Your task to perform on an android device: Search for macbook on newegg.com, select the first entry, and add it to the cart. Image 0: 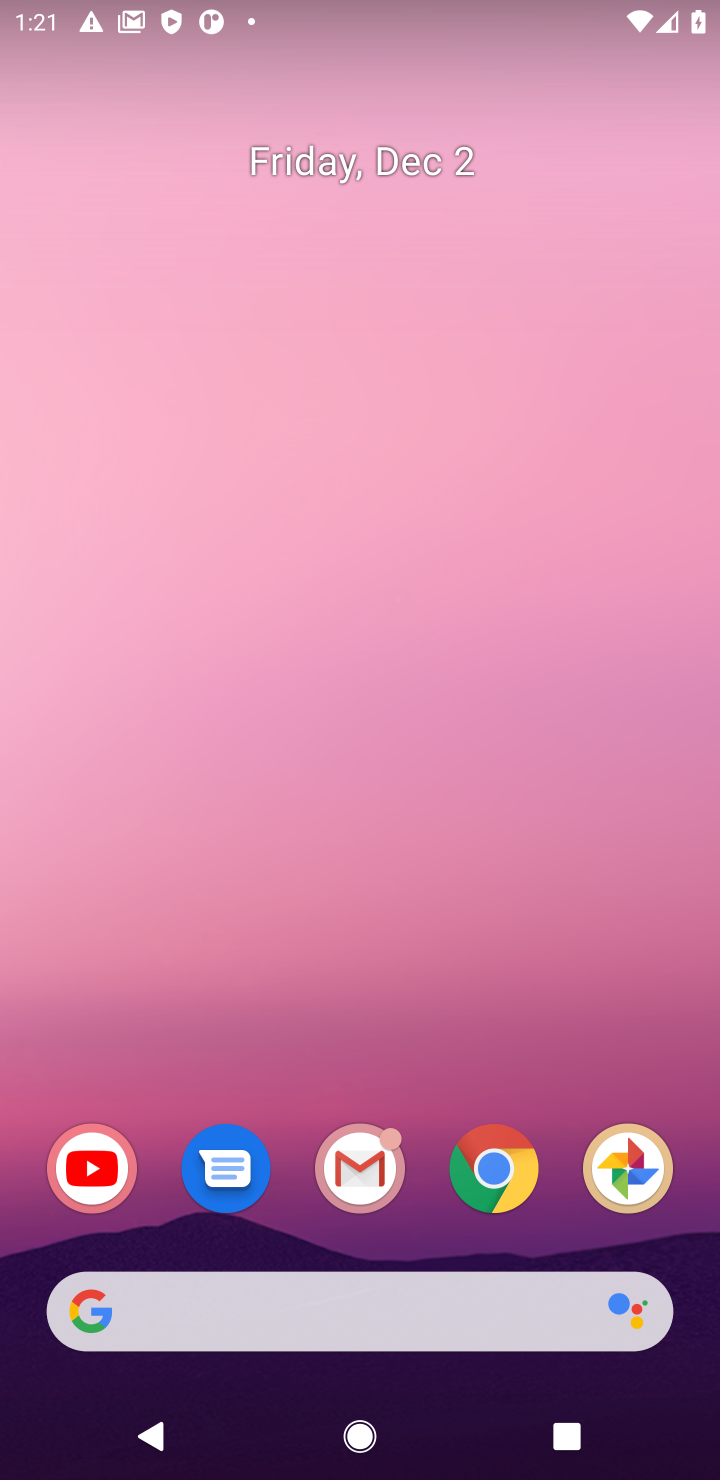
Step 0: click (514, 1172)
Your task to perform on an android device: Search for macbook on newegg.com, select the first entry, and add it to the cart. Image 1: 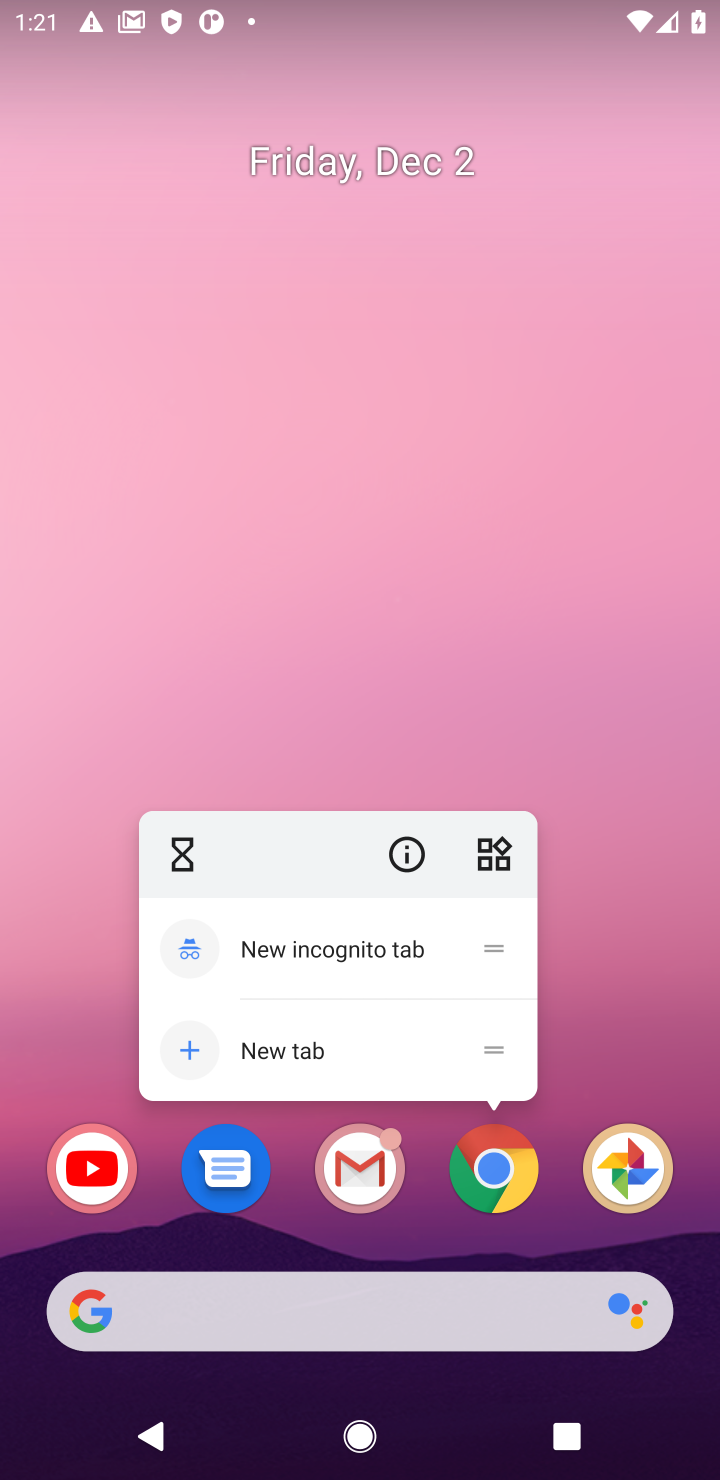
Step 1: click (505, 1172)
Your task to perform on an android device: Search for macbook on newegg.com, select the first entry, and add it to the cart. Image 2: 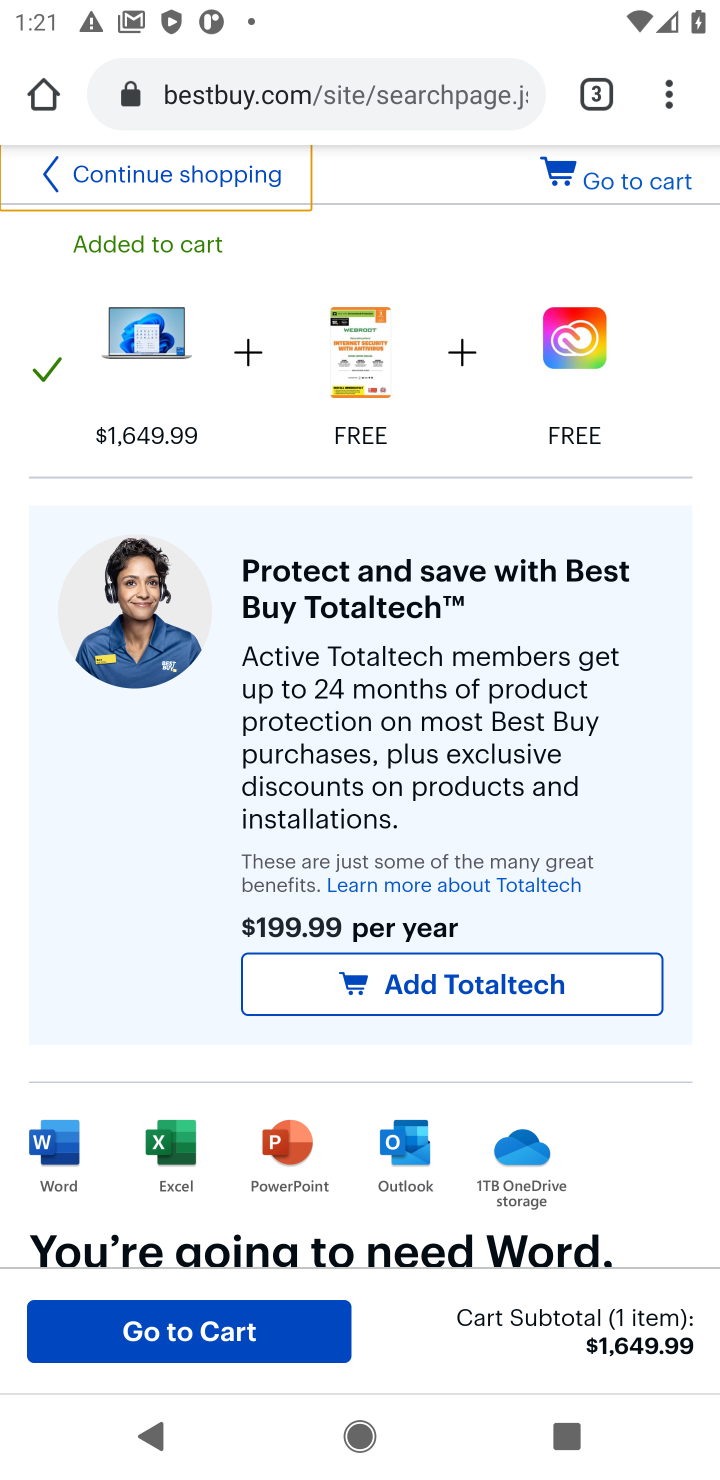
Step 2: click (271, 106)
Your task to perform on an android device: Search for macbook on newegg.com, select the first entry, and add it to the cart. Image 3: 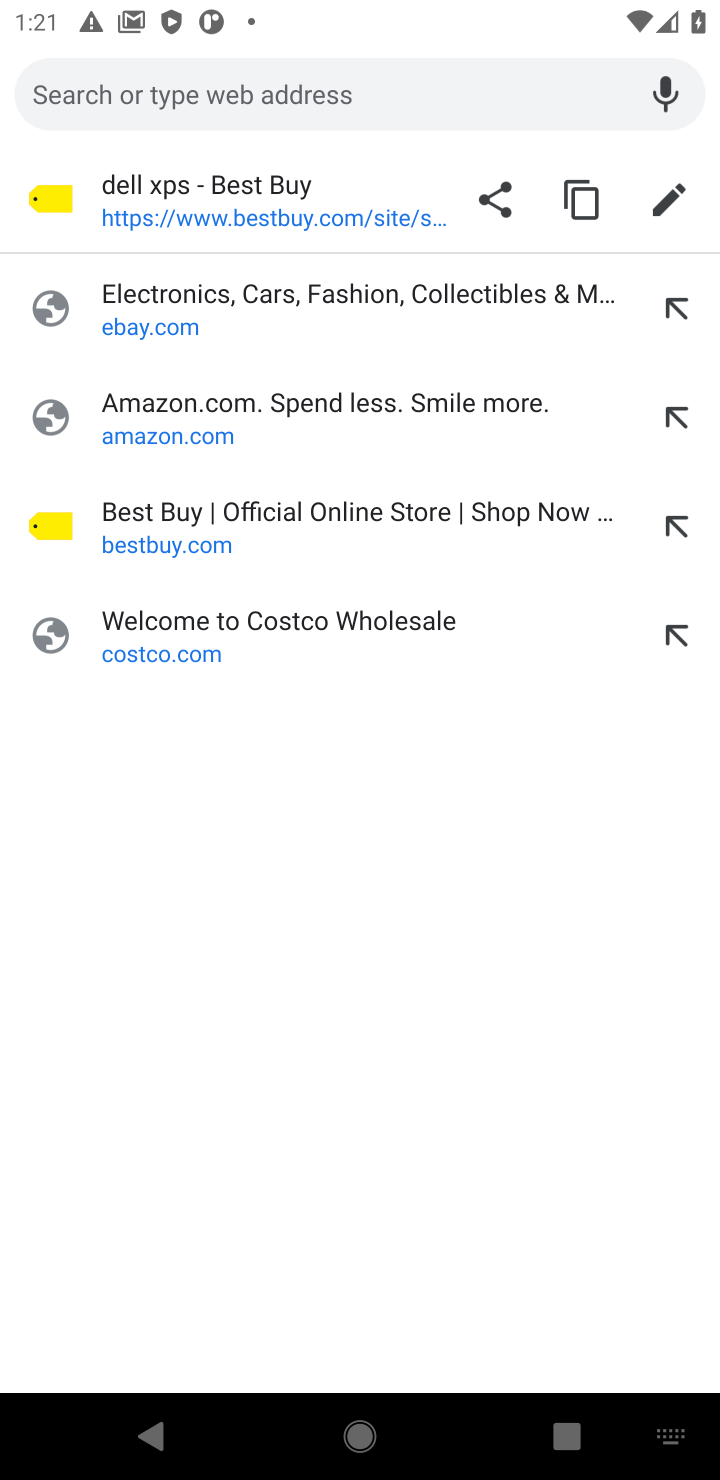
Step 3: type "newegg.com"
Your task to perform on an android device: Search for macbook on newegg.com, select the first entry, and add it to the cart. Image 4: 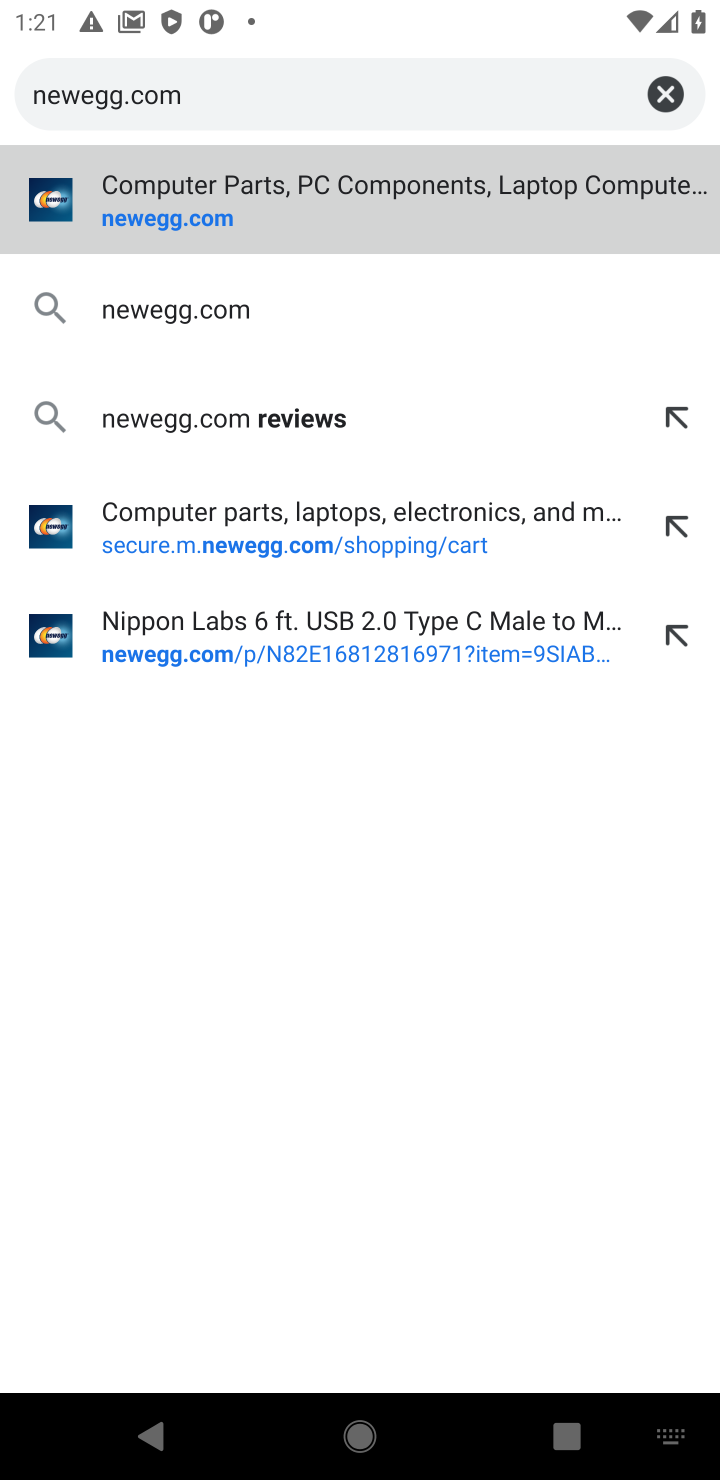
Step 4: click (137, 194)
Your task to perform on an android device: Search for macbook on newegg.com, select the first entry, and add it to the cart. Image 5: 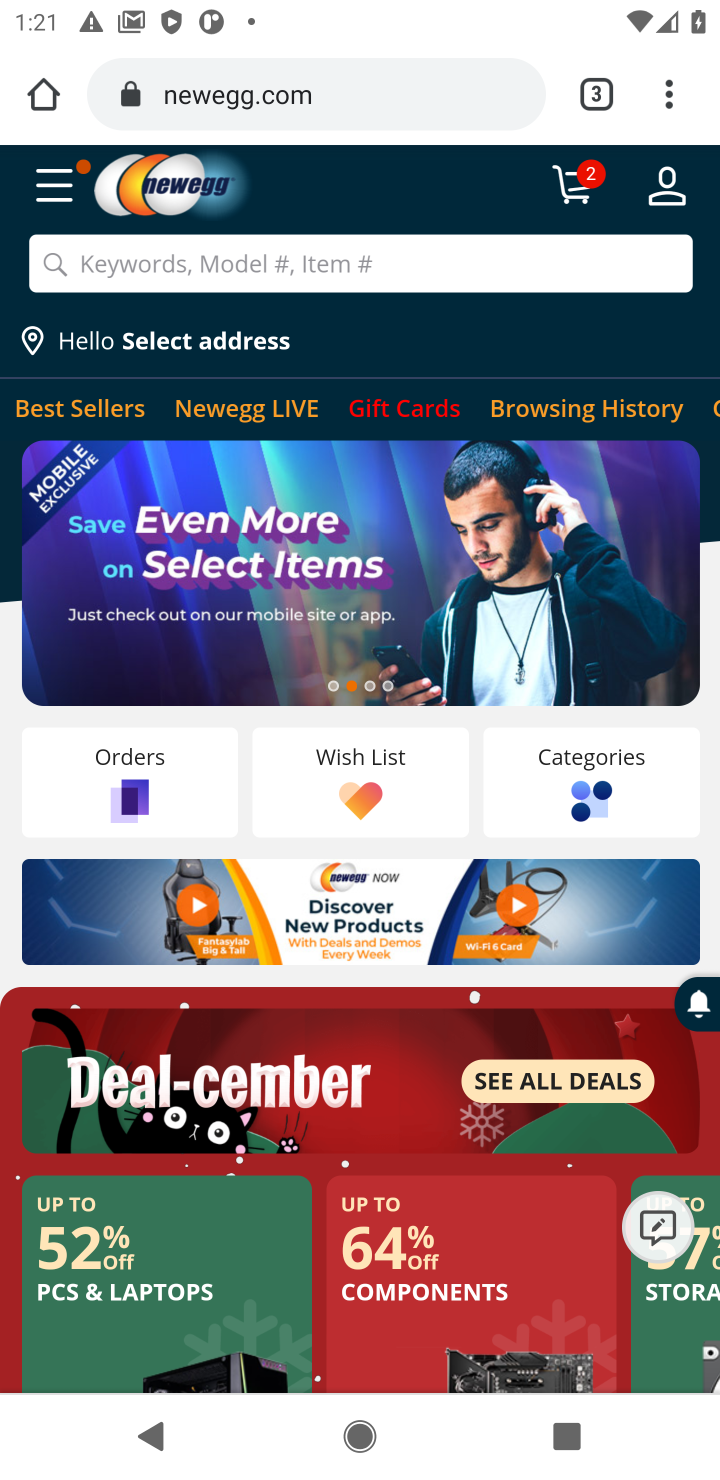
Step 5: click (160, 307)
Your task to perform on an android device: Search for macbook on newegg.com, select the first entry, and add it to the cart. Image 6: 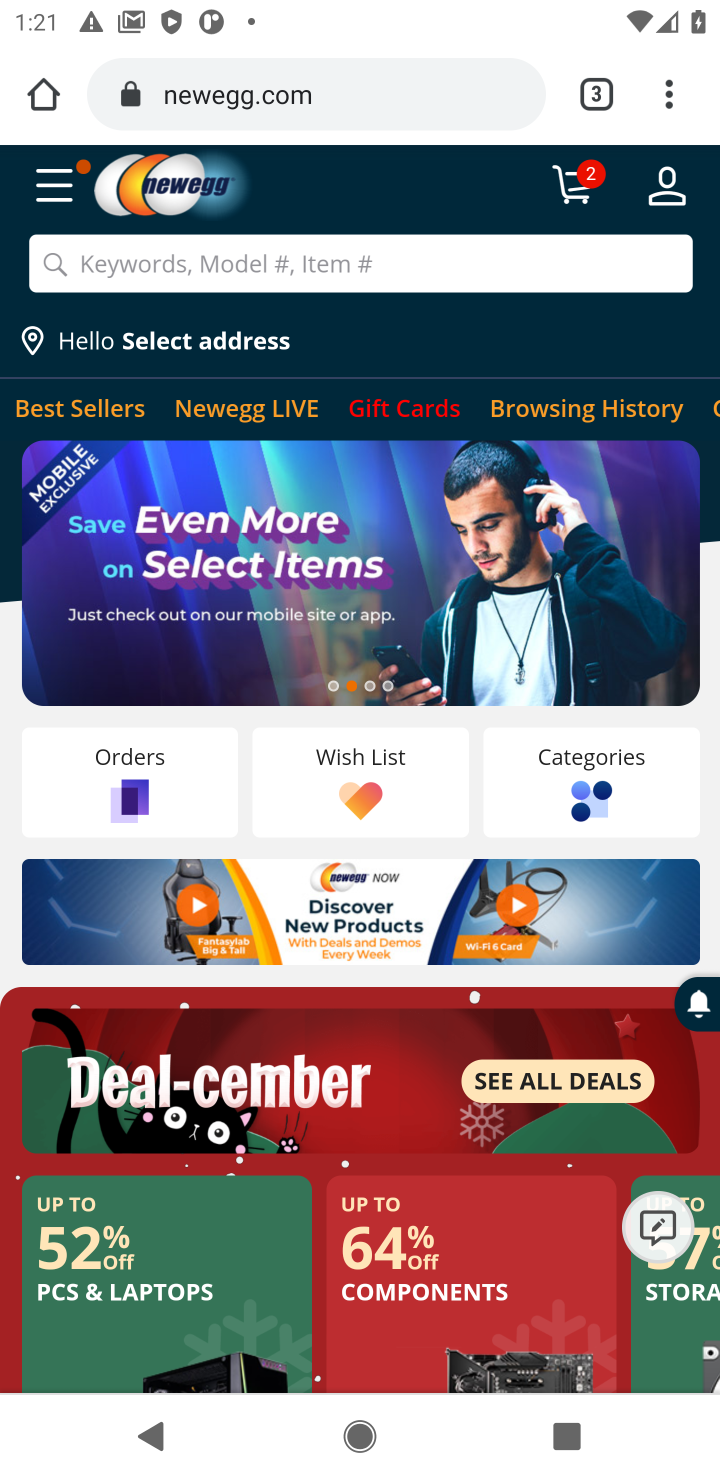
Step 6: click (170, 258)
Your task to perform on an android device: Search for macbook on newegg.com, select the first entry, and add it to the cart. Image 7: 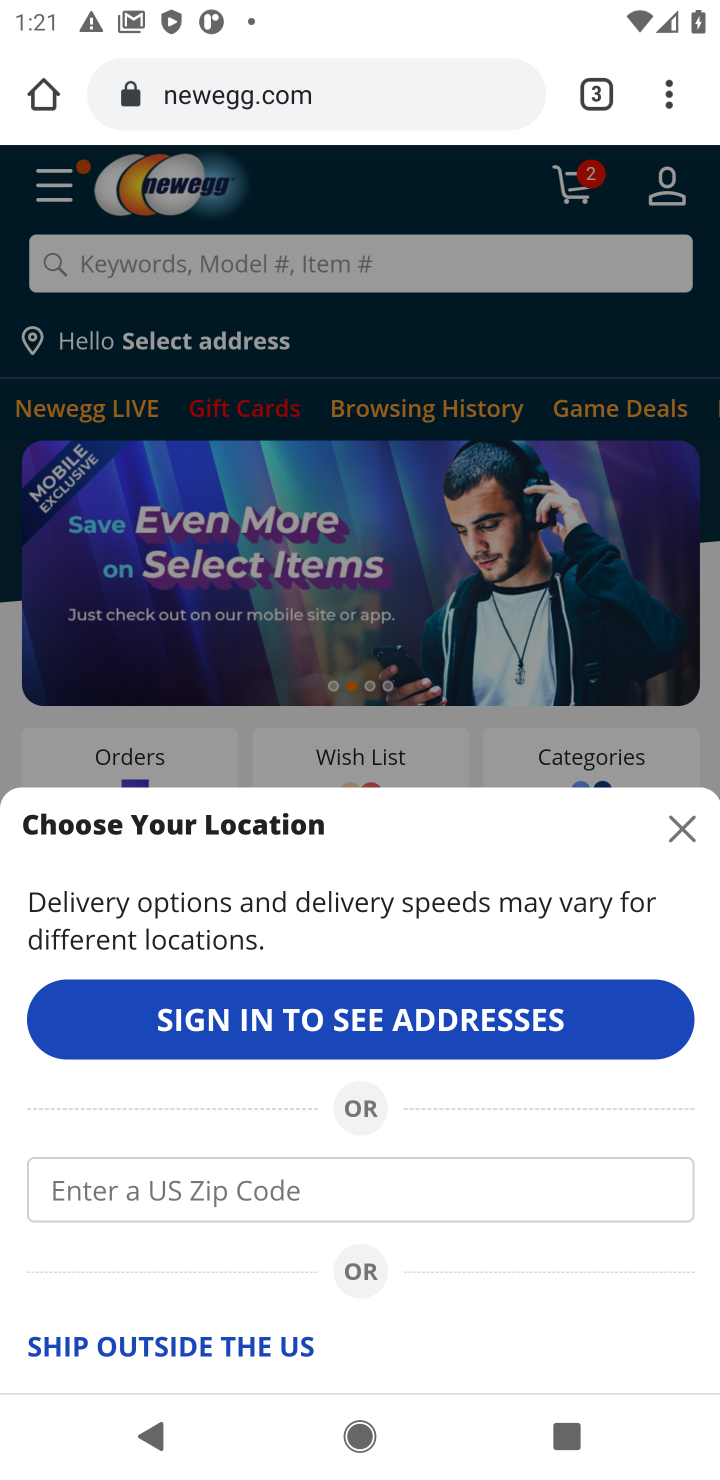
Step 7: click (166, 267)
Your task to perform on an android device: Search for macbook on newegg.com, select the first entry, and add it to the cart. Image 8: 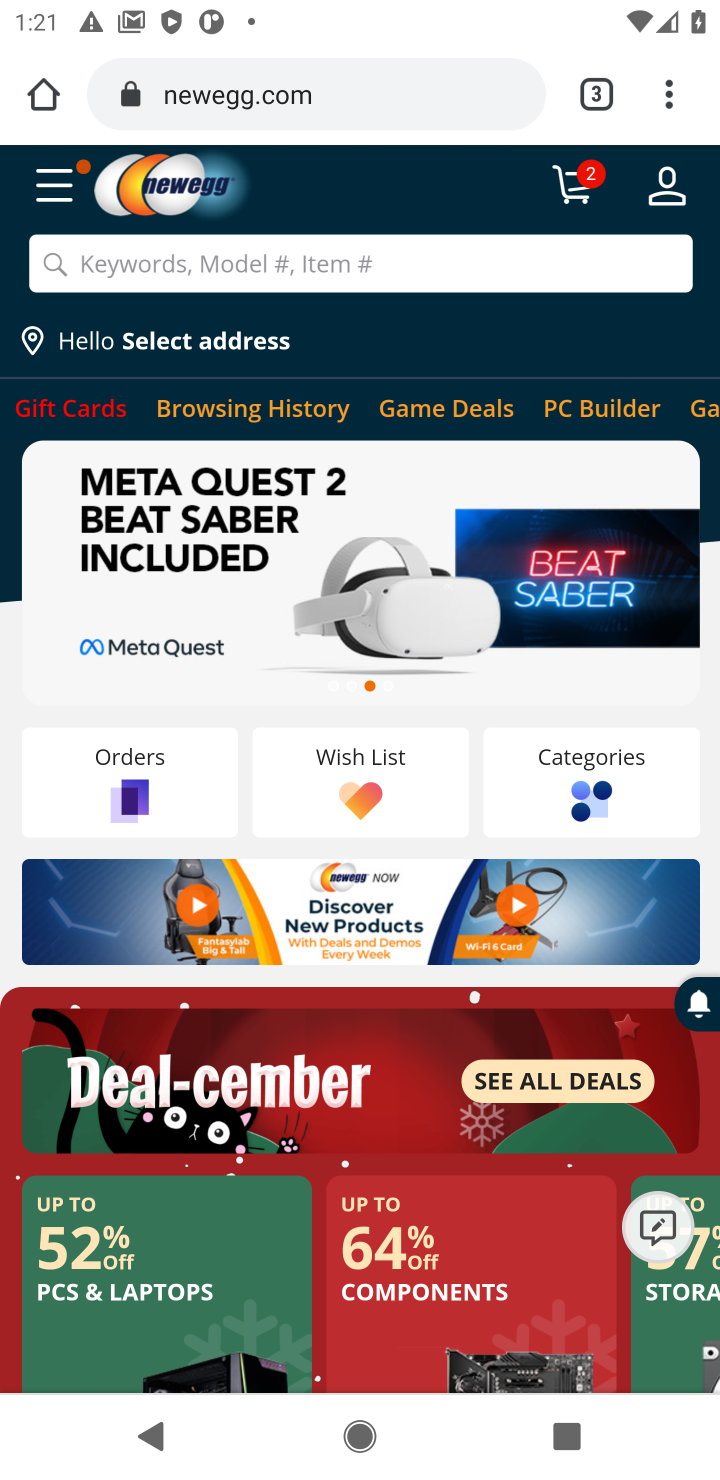
Step 8: click (132, 266)
Your task to perform on an android device: Search for macbook on newegg.com, select the first entry, and add it to the cart. Image 9: 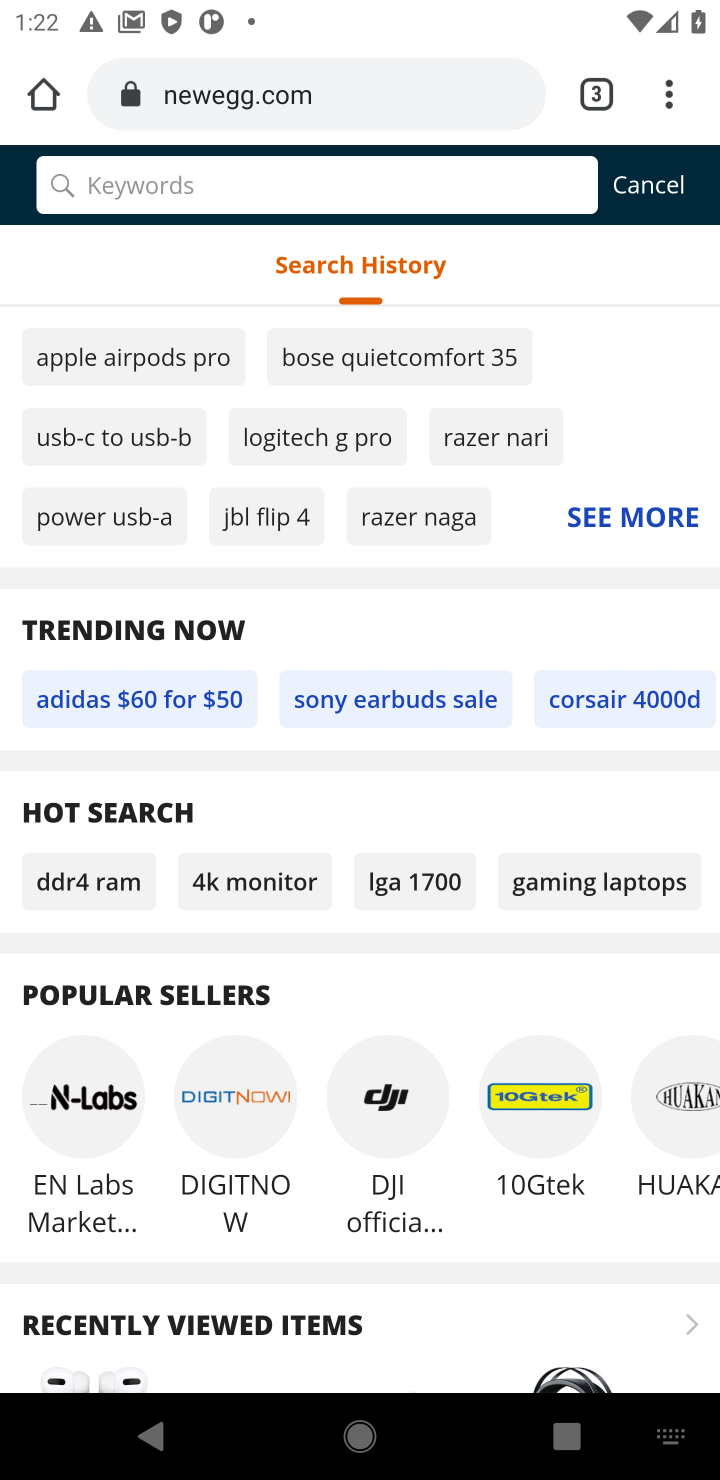
Step 9: type "macbook"
Your task to perform on an android device: Search for macbook on newegg.com, select the first entry, and add it to the cart. Image 10: 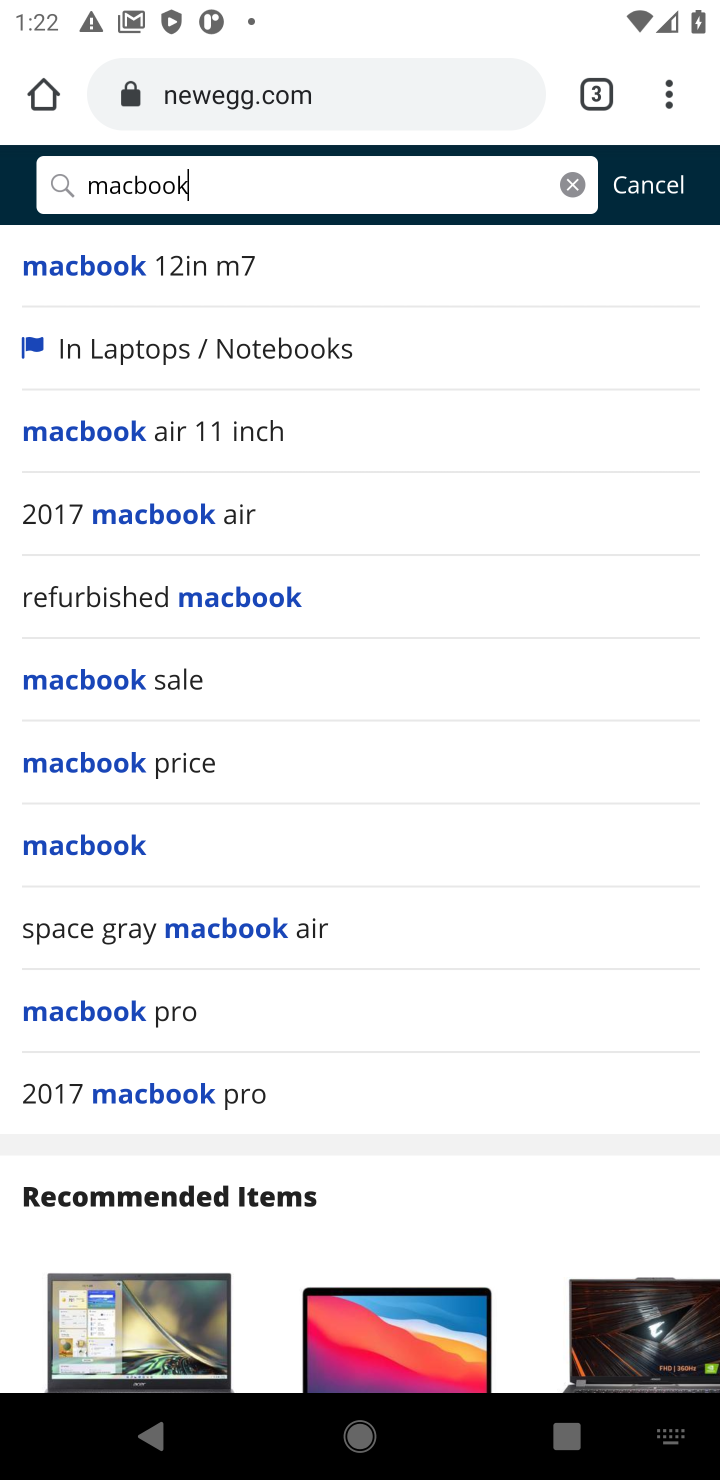
Step 10: click (78, 855)
Your task to perform on an android device: Search for macbook on newegg.com, select the first entry, and add it to the cart. Image 11: 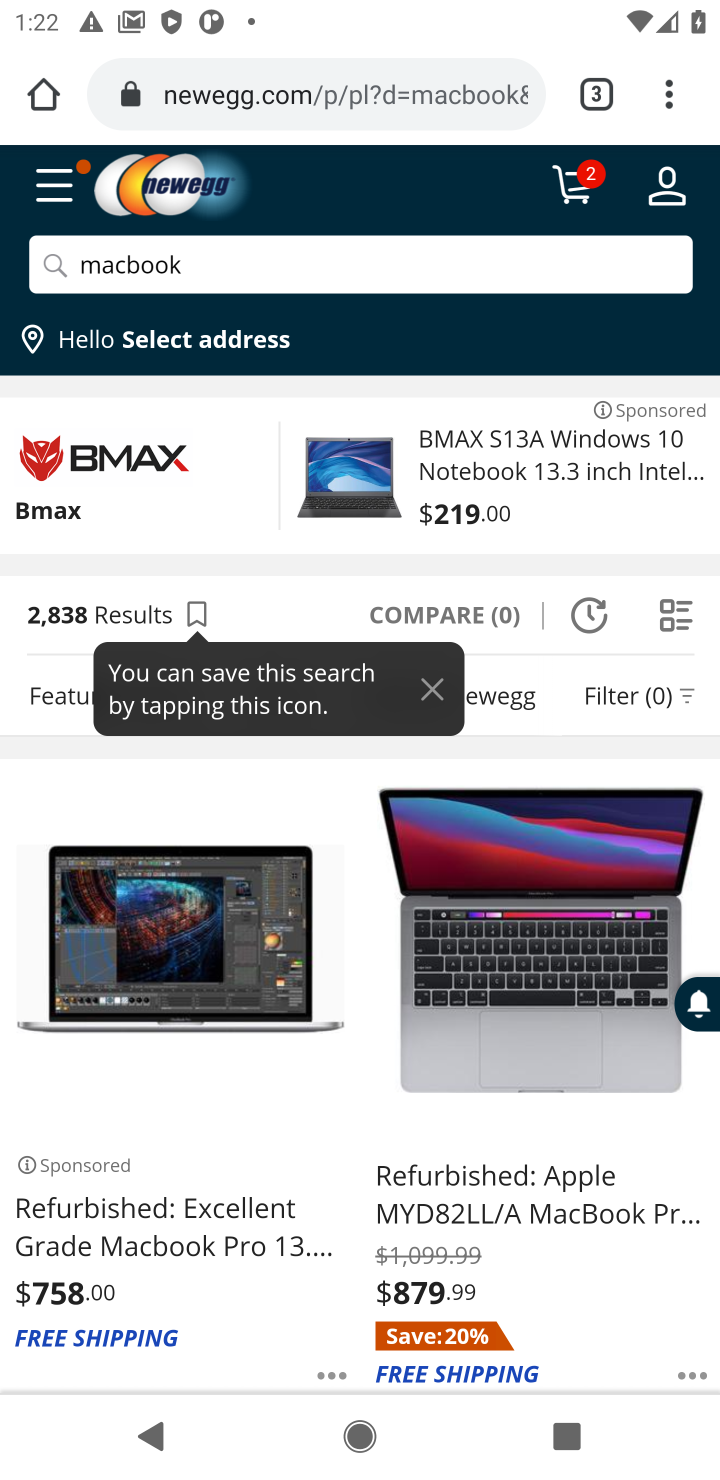
Step 11: click (108, 1214)
Your task to perform on an android device: Search for macbook on newegg.com, select the first entry, and add it to the cart. Image 12: 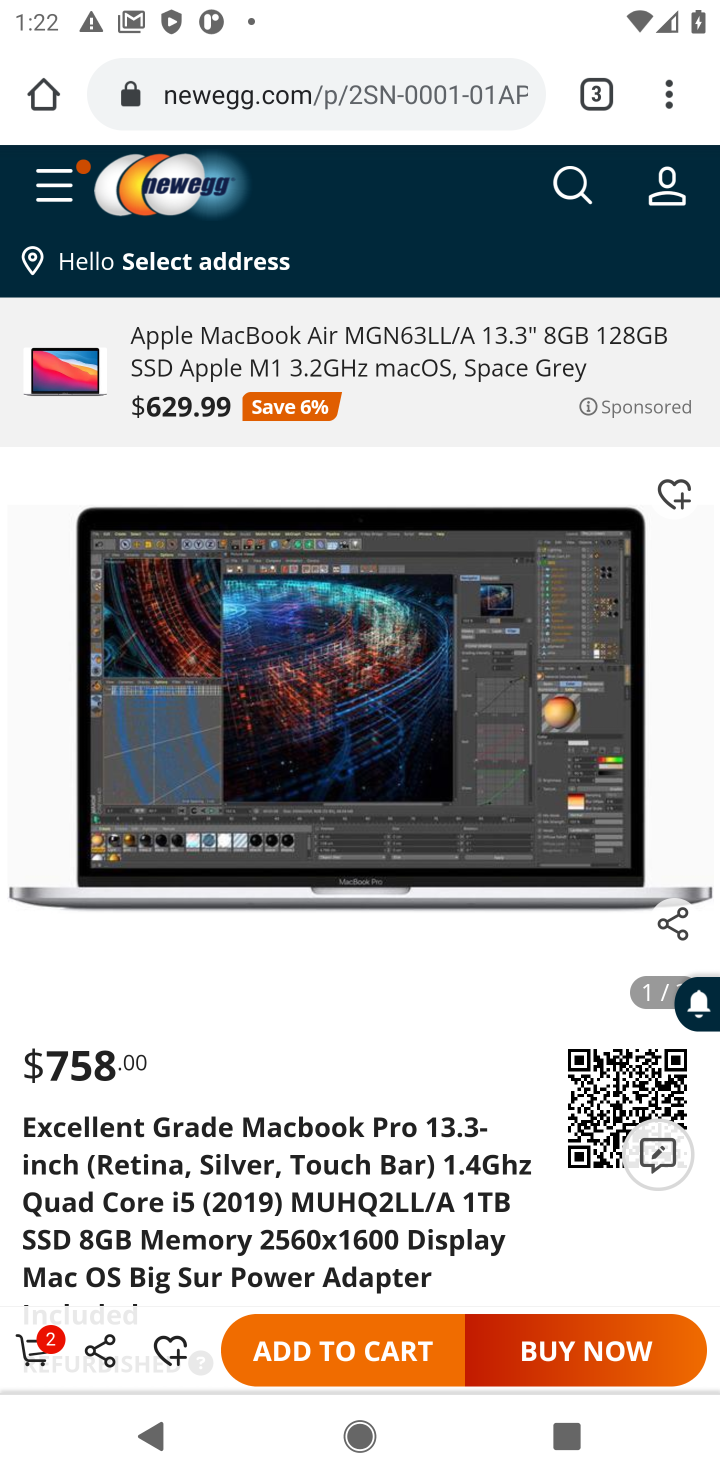
Step 12: click (328, 1357)
Your task to perform on an android device: Search for macbook on newegg.com, select the first entry, and add it to the cart. Image 13: 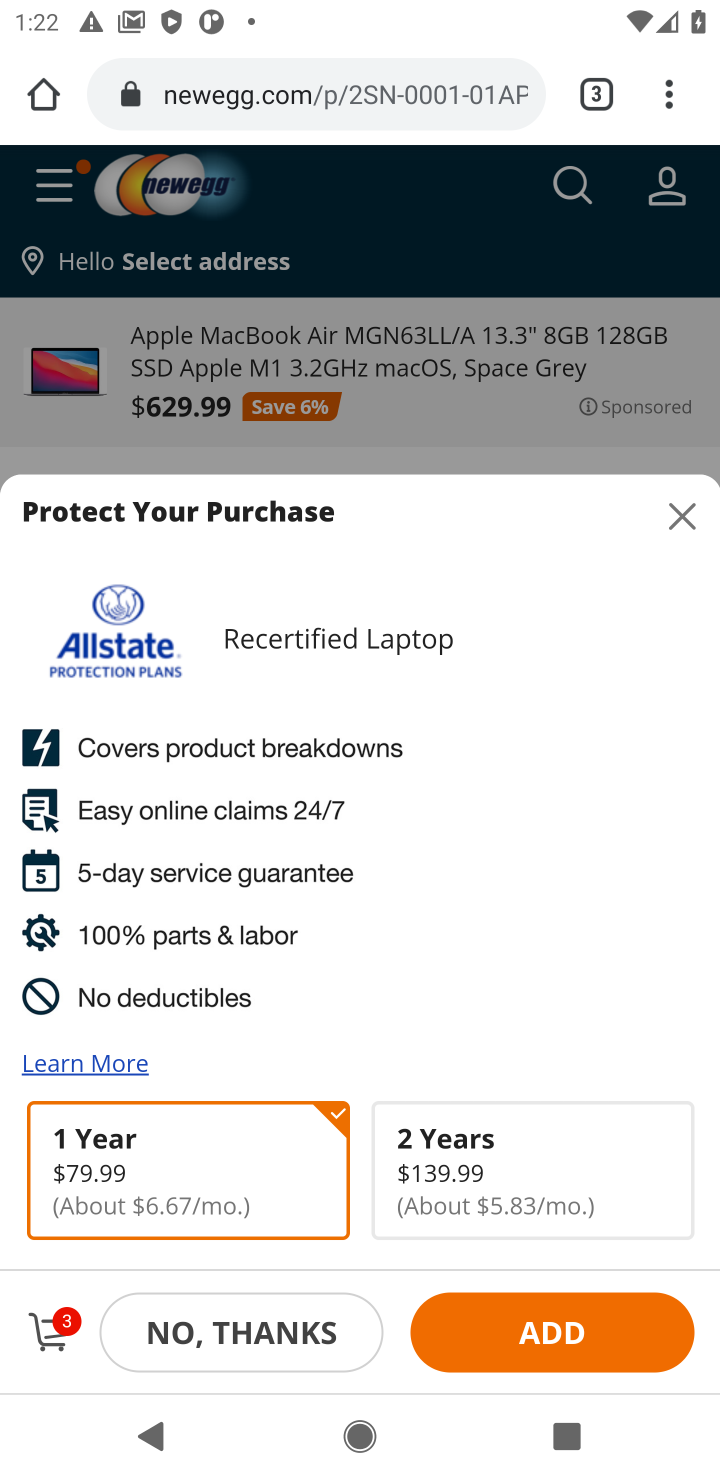
Step 13: task complete